Your task to perform on an android device: Open my contact list Image 0: 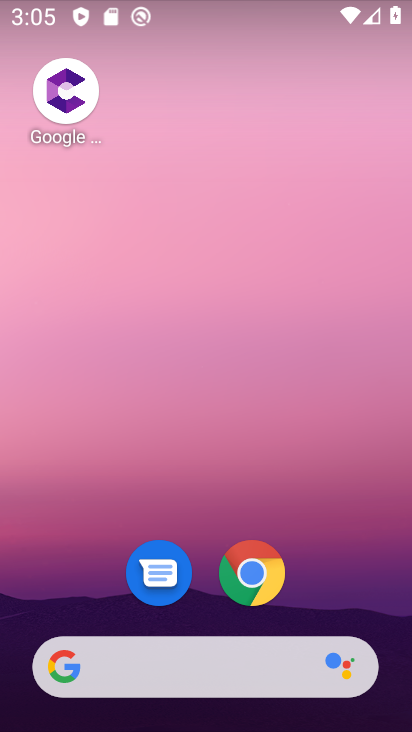
Step 0: drag from (197, 631) to (260, 388)
Your task to perform on an android device: Open my contact list Image 1: 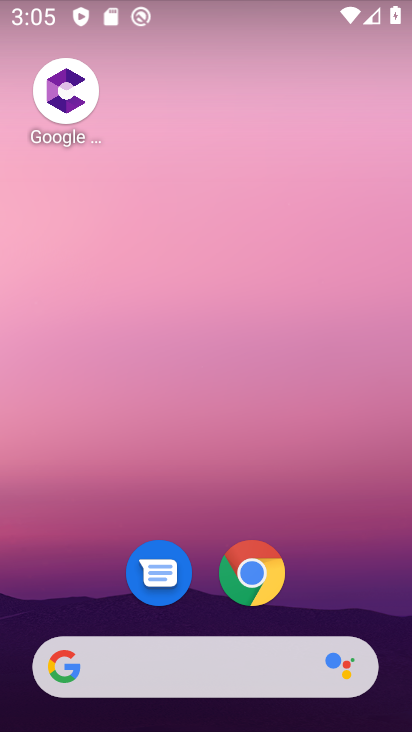
Step 1: drag from (199, 613) to (226, 212)
Your task to perform on an android device: Open my contact list Image 2: 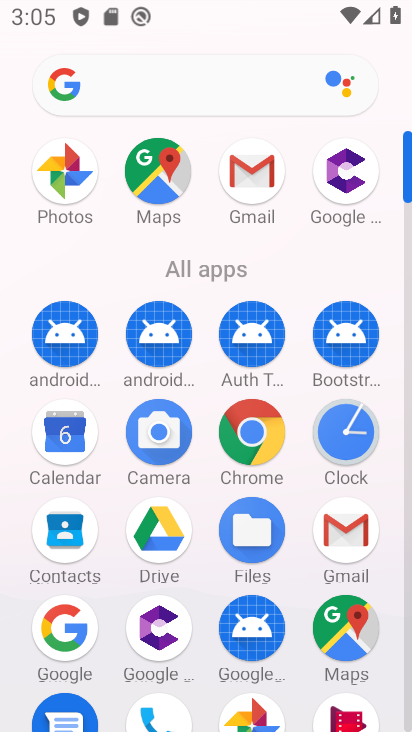
Step 2: click (72, 522)
Your task to perform on an android device: Open my contact list Image 3: 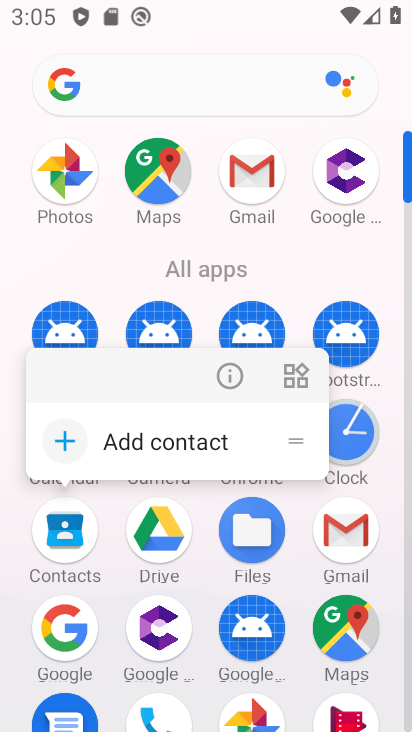
Step 3: click (223, 363)
Your task to perform on an android device: Open my contact list Image 4: 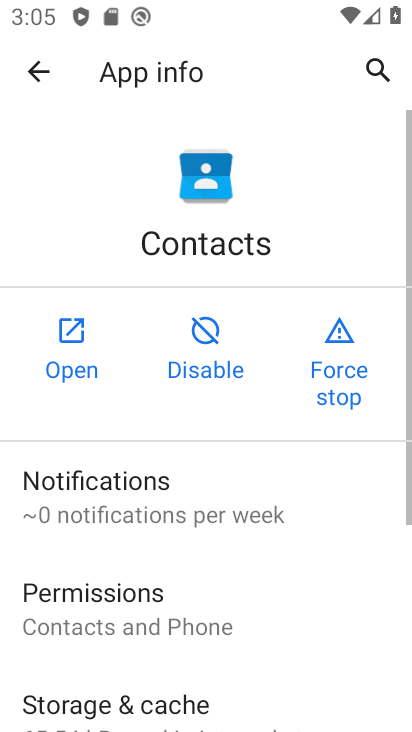
Step 4: click (60, 341)
Your task to perform on an android device: Open my contact list Image 5: 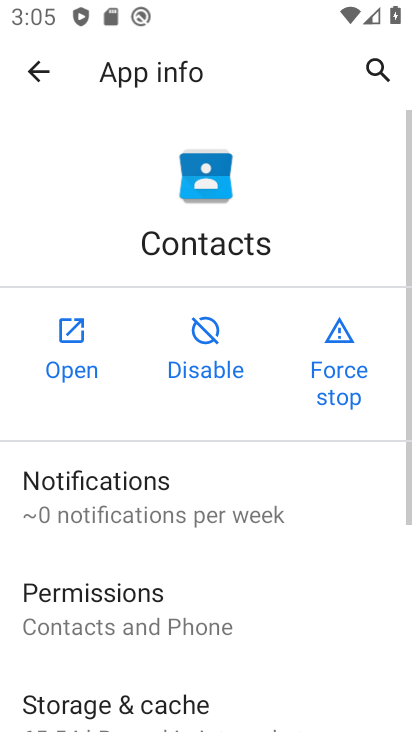
Step 5: click (60, 341)
Your task to perform on an android device: Open my contact list Image 6: 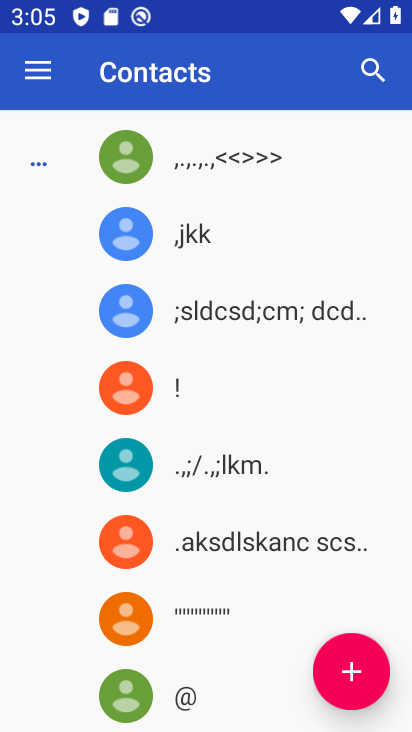
Step 6: task complete